Your task to perform on an android device: find which apps use the phone's location Image 0: 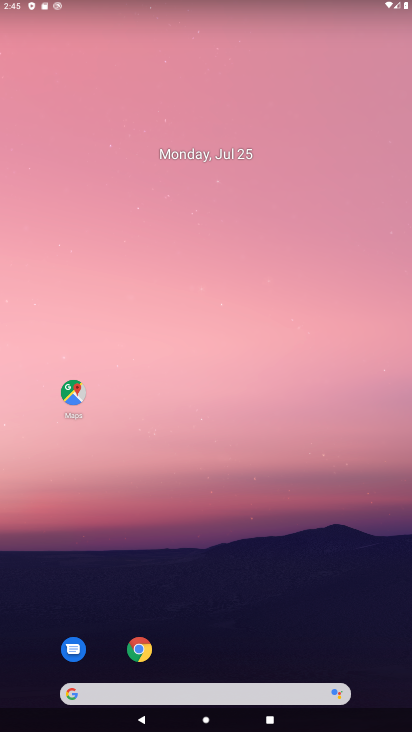
Step 0: drag from (132, 567) to (214, 83)
Your task to perform on an android device: find which apps use the phone's location Image 1: 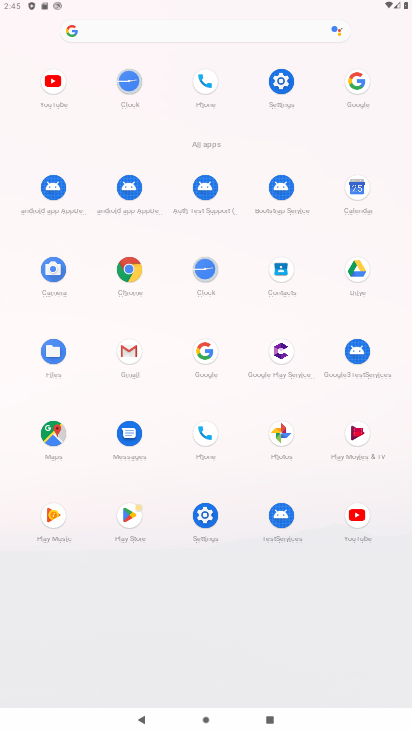
Step 1: click (286, 82)
Your task to perform on an android device: find which apps use the phone's location Image 2: 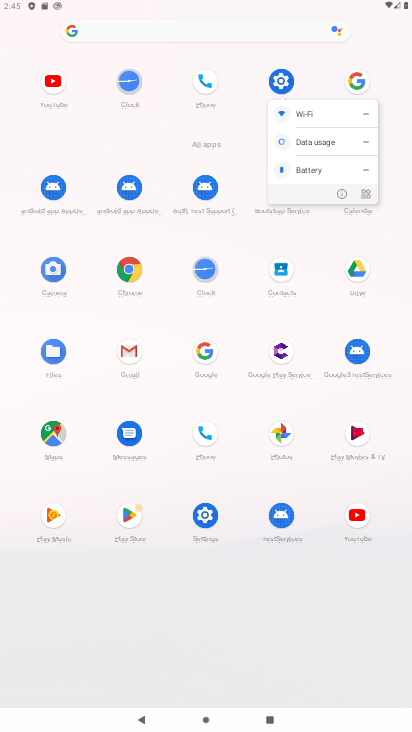
Step 2: click (313, 157)
Your task to perform on an android device: find which apps use the phone's location Image 3: 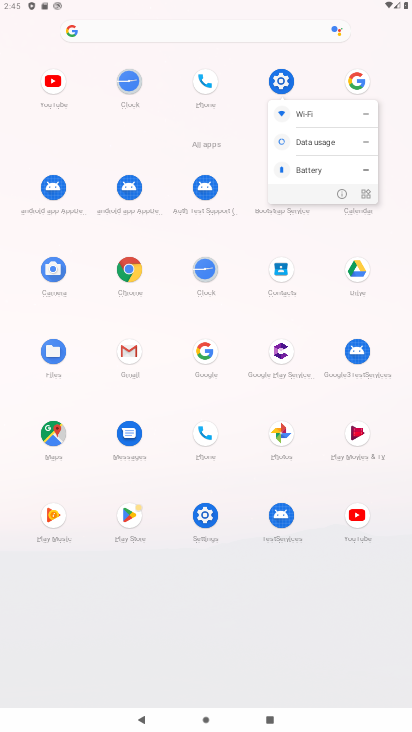
Step 3: click (313, 157)
Your task to perform on an android device: find which apps use the phone's location Image 4: 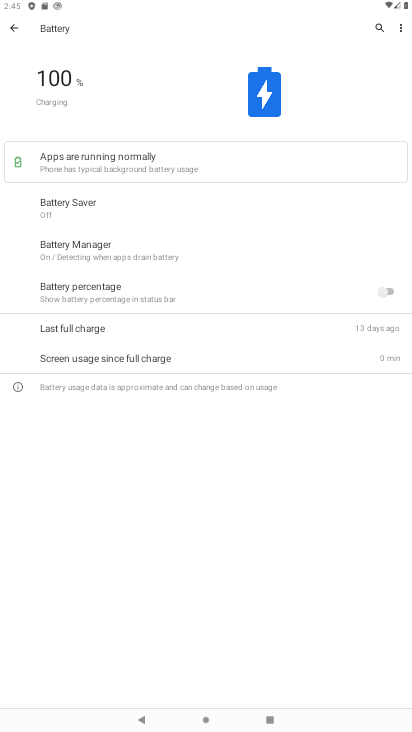
Step 4: click (13, 30)
Your task to perform on an android device: find which apps use the phone's location Image 5: 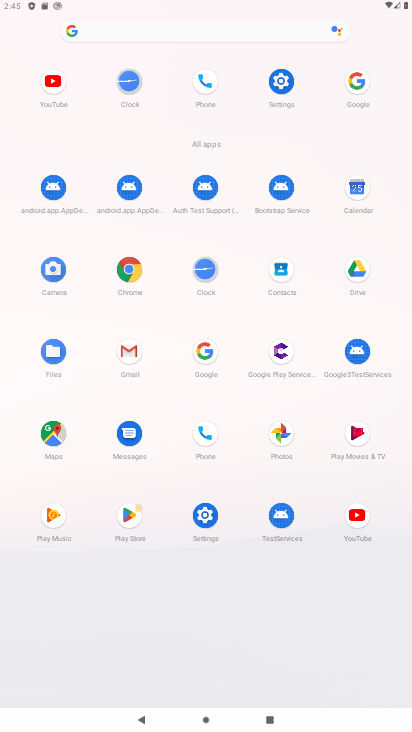
Step 5: click (280, 90)
Your task to perform on an android device: find which apps use the phone's location Image 6: 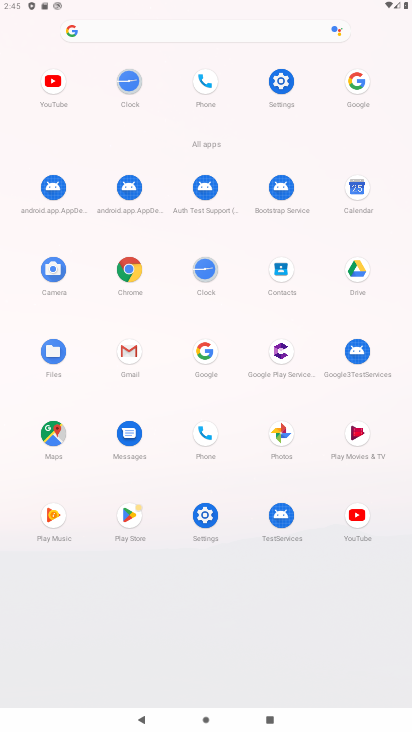
Step 6: click (280, 90)
Your task to perform on an android device: find which apps use the phone's location Image 7: 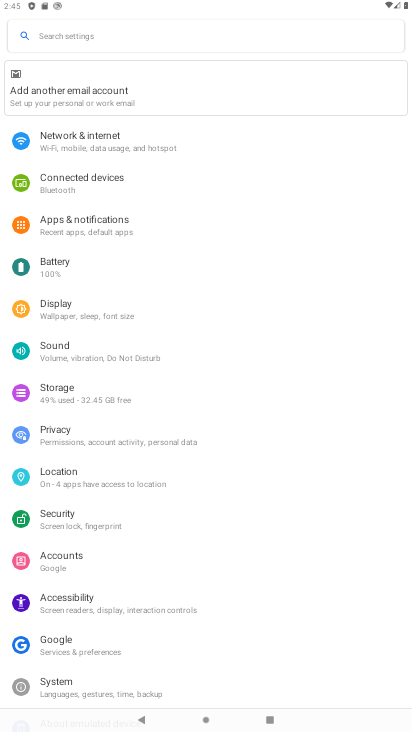
Step 7: click (82, 474)
Your task to perform on an android device: find which apps use the phone's location Image 8: 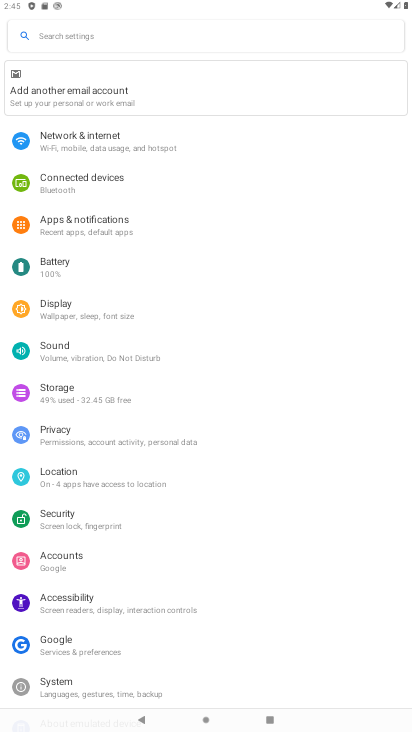
Step 8: click (82, 474)
Your task to perform on an android device: find which apps use the phone's location Image 9: 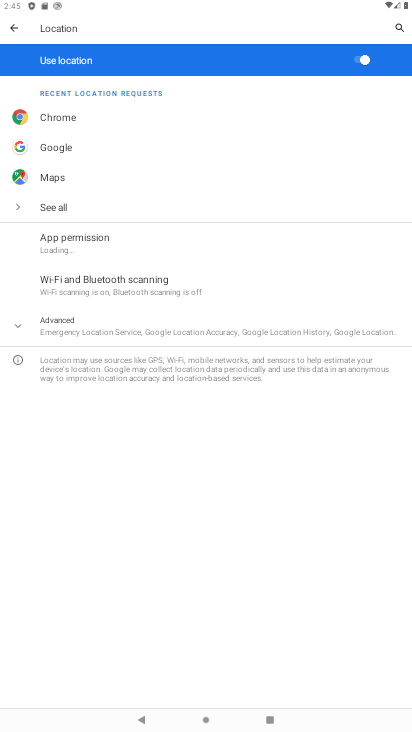
Step 9: click (95, 241)
Your task to perform on an android device: find which apps use the phone's location Image 10: 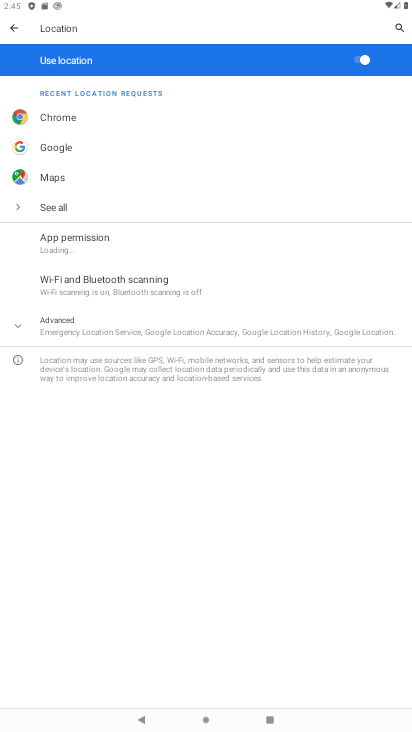
Step 10: click (95, 241)
Your task to perform on an android device: find which apps use the phone's location Image 11: 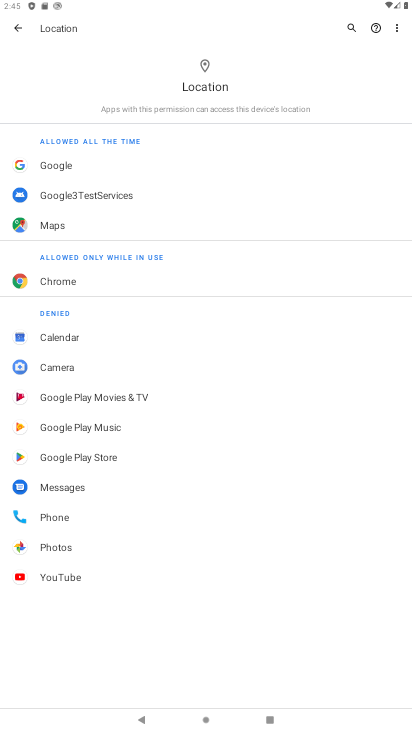
Step 11: task complete